Your task to perform on an android device: Go to wifi settings Image 0: 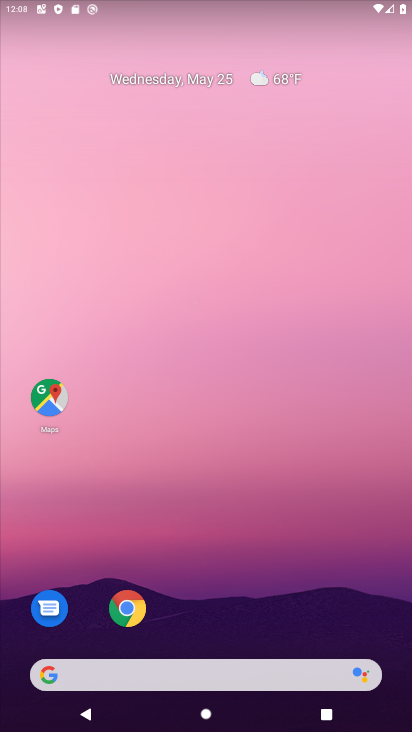
Step 0: drag from (123, 5) to (199, 523)
Your task to perform on an android device: Go to wifi settings Image 1: 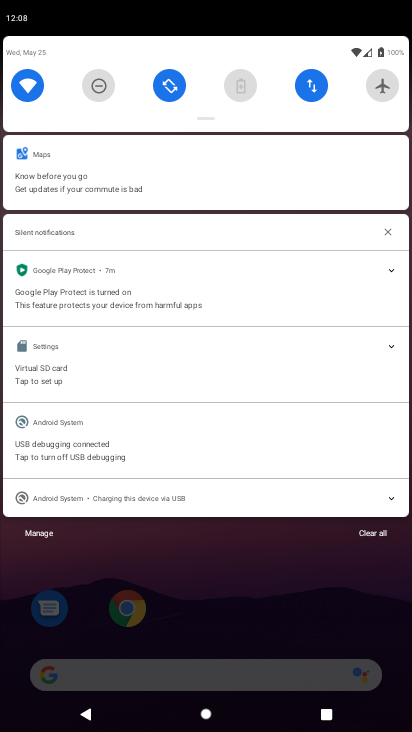
Step 1: click (30, 79)
Your task to perform on an android device: Go to wifi settings Image 2: 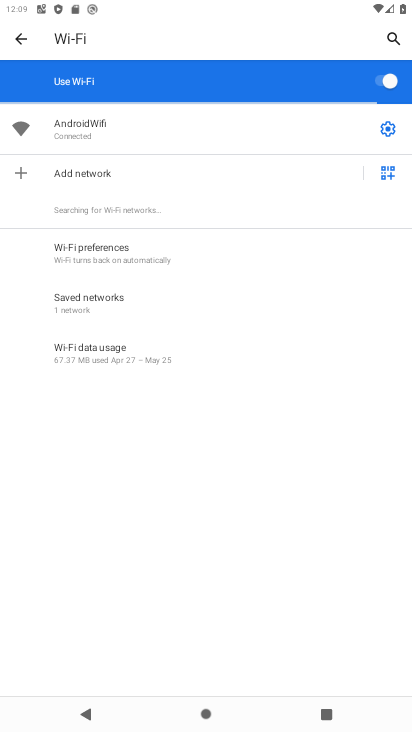
Step 2: task complete